Your task to perform on an android device: Go to notification settings Image 0: 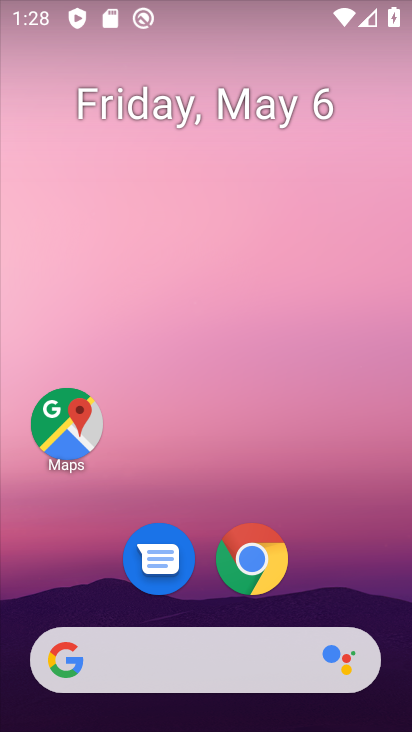
Step 0: drag from (315, 649) to (343, 80)
Your task to perform on an android device: Go to notification settings Image 1: 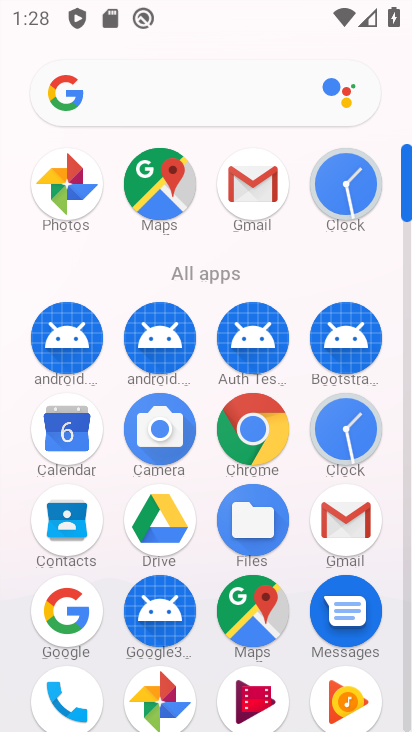
Step 1: drag from (284, 662) to (273, 136)
Your task to perform on an android device: Go to notification settings Image 2: 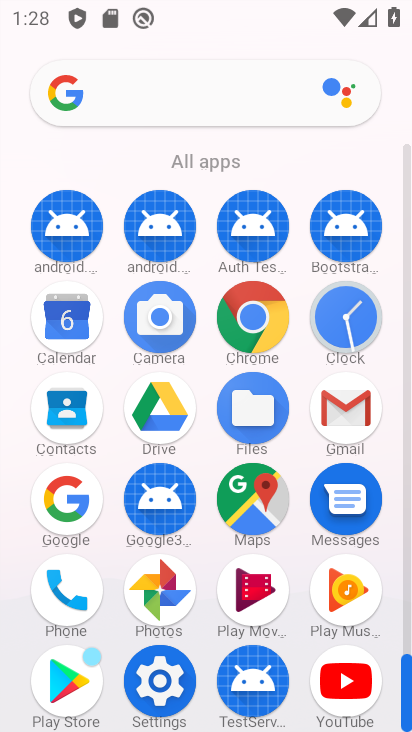
Step 2: click (160, 680)
Your task to perform on an android device: Go to notification settings Image 3: 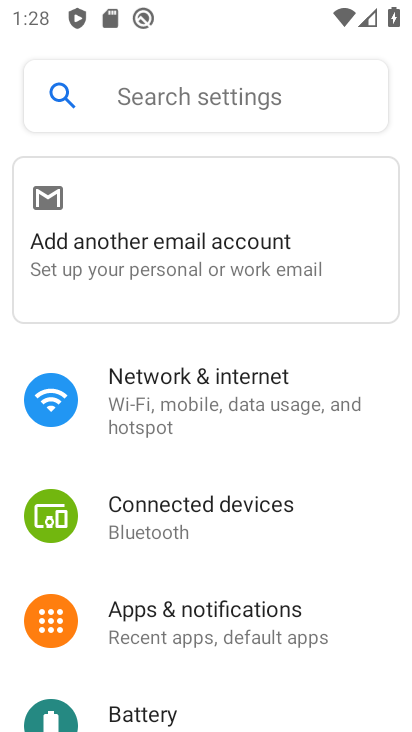
Step 3: click (213, 628)
Your task to perform on an android device: Go to notification settings Image 4: 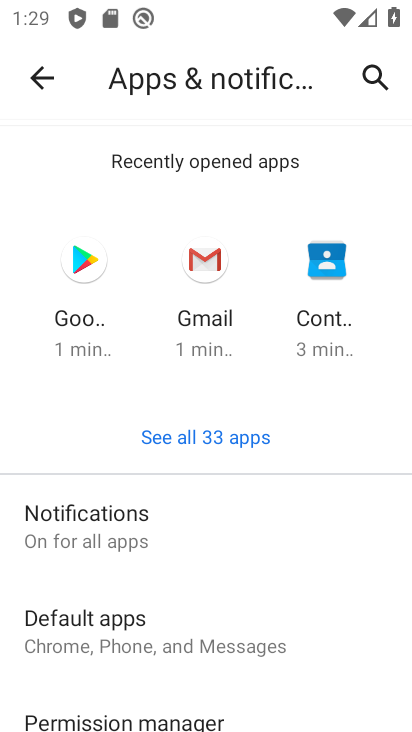
Step 4: click (118, 523)
Your task to perform on an android device: Go to notification settings Image 5: 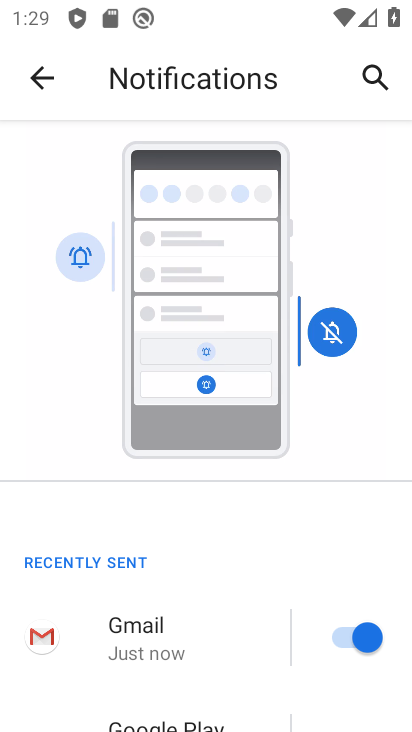
Step 5: click (91, 261)
Your task to perform on an android device: Go to notification settings Image 6: 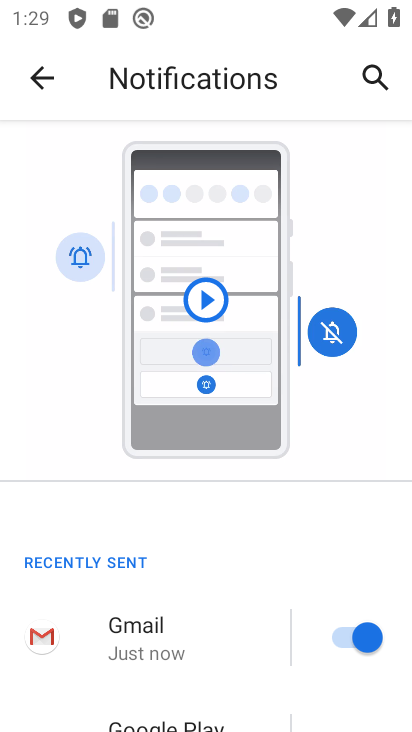
Step 6: click (88, 261)
Your task to perform on an android device: Go to notification settings Image 7: 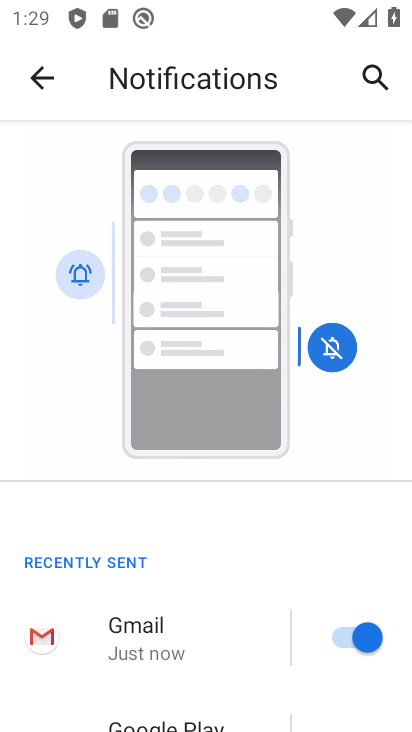
Step 7: task complete